Your task to perform on an android device: Open wifi settings Image 0: 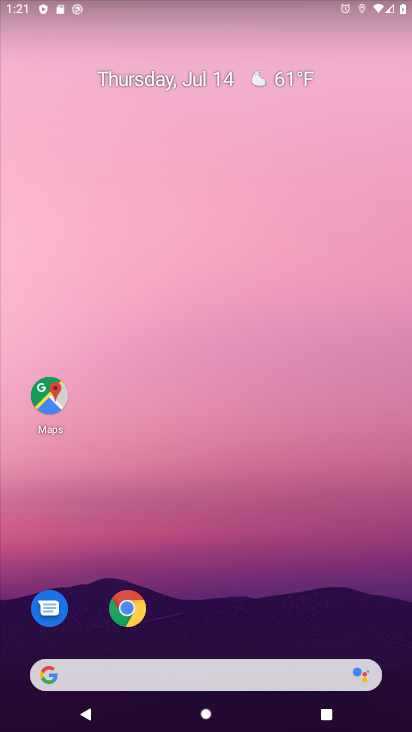
Step 0: drag from (251, 653) to (184, 220)
Your task to perform on an android device: Open wifi settings Image 1: 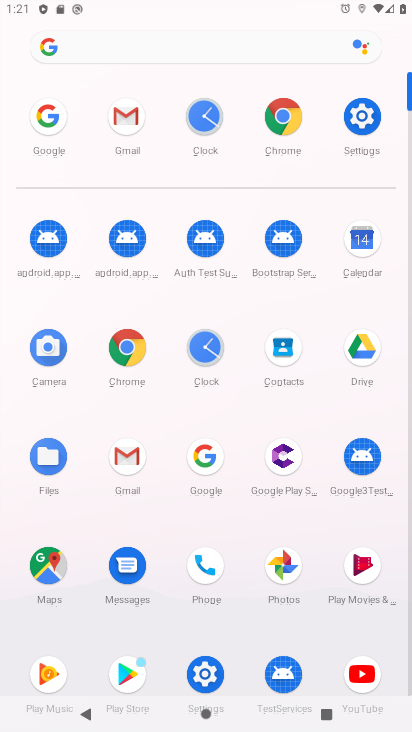
Step 1: click (353, 127)
Your task to perform on an android device: Open wifi settings Image 2: 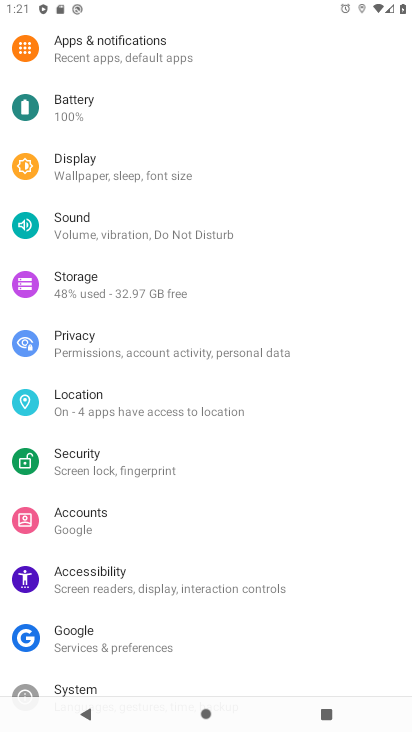
Step 2: drag from (134, 146) to (148, 504)
Your task to perform on an android device: Open wifi settings Image 3: 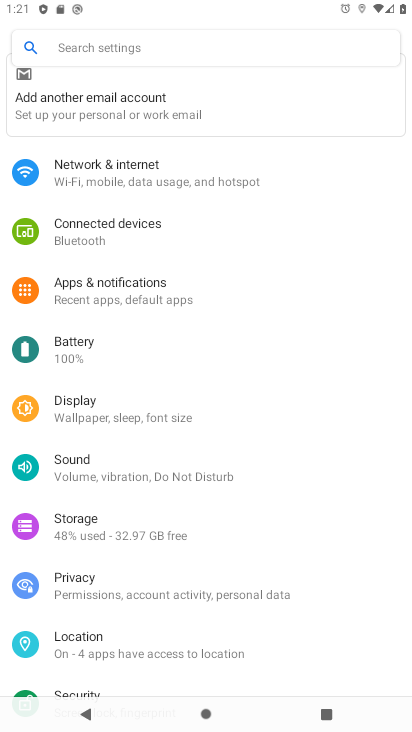
Step 3: click (88, 177)
Your task to perform on an android device: Open wifi settings Image 4: 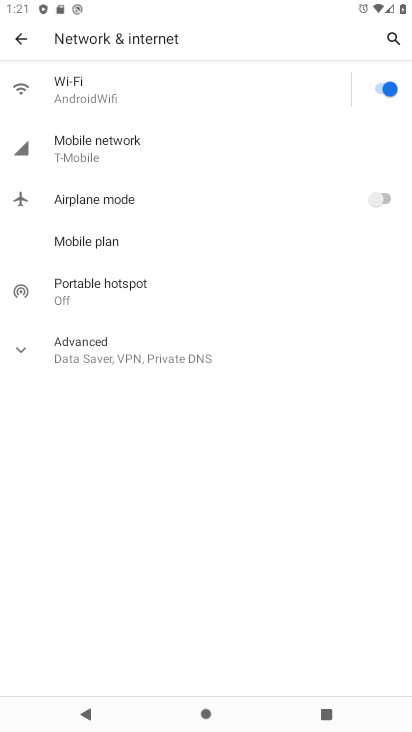
Step 4: click (84, 93)
Your task to perform on an android device: Open wifi settings Image 5: 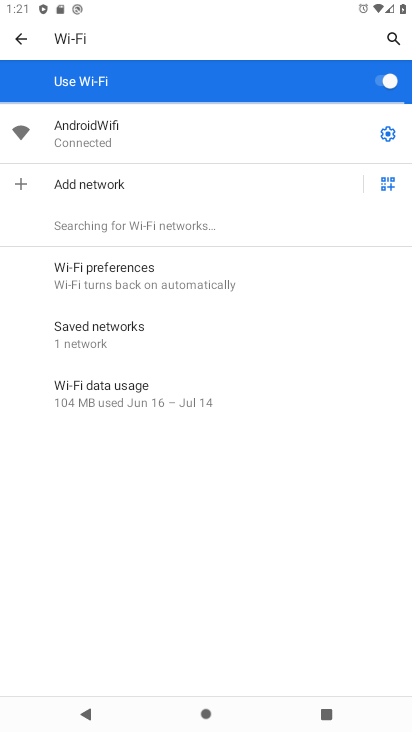
Step 5: click (388, 131)
Your task to perform on an android device: Open wifi settings Image 6: 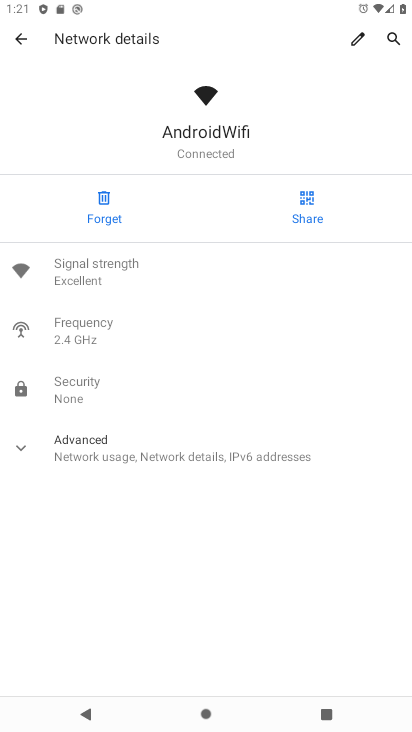
Step 6: click (163, 453)
Your task to perform on an android device: Open wifi settings Image 7: 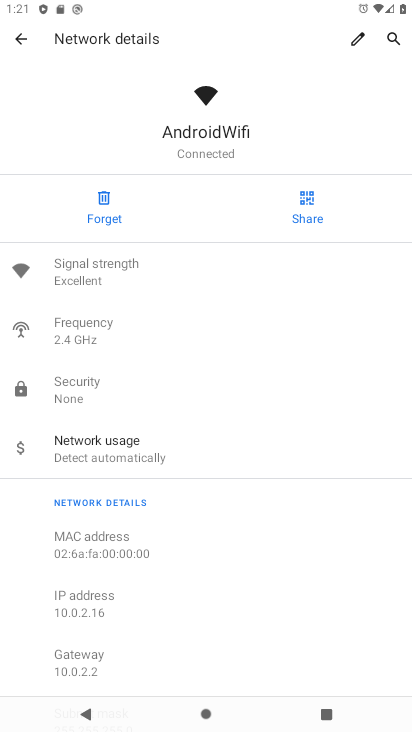
Step 7: task complete